Your task to perform on an android device: See recent photos Image 0: 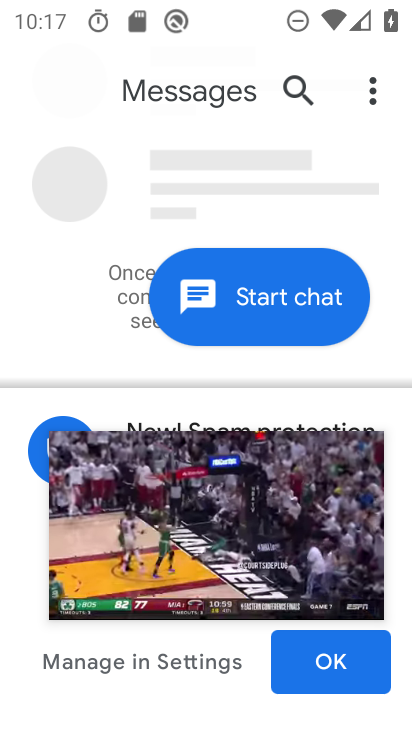
Step 0: click (264, 550)
Your task to perform on an android device: See recent photos Image 1: 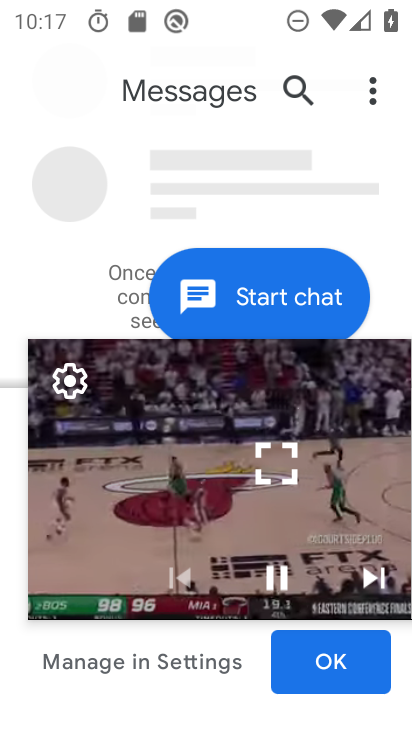
Step 1: press home button
Your task to perform on an android device: See recent photos Image 2: 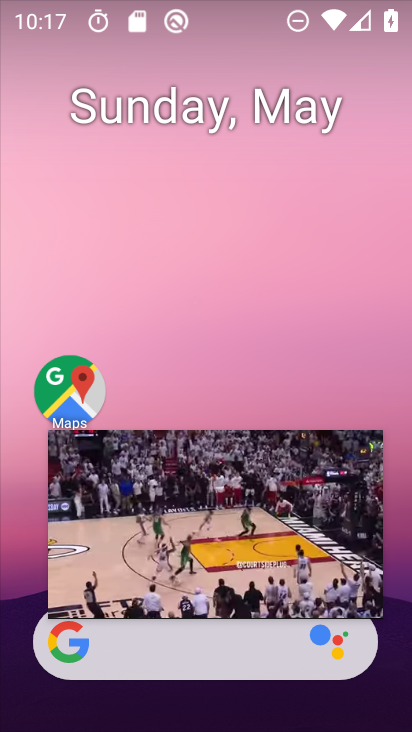
Step 2: click (368, 122)
Your task to perform on an android device: See recent photos Image 3: 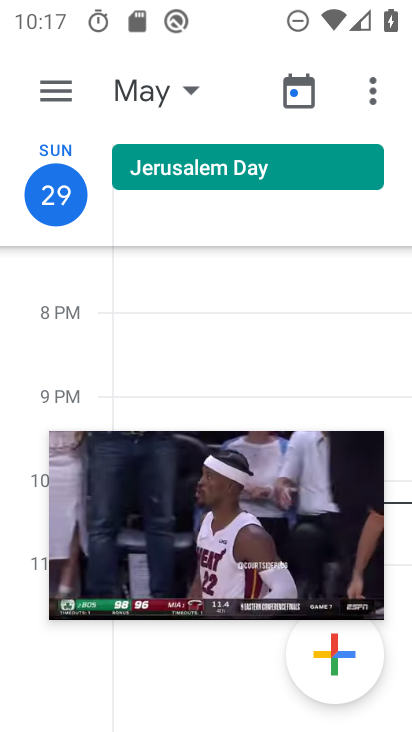
Step 3: click (365, 459)
Your task to perform on an android device: See recent photos Image 4: 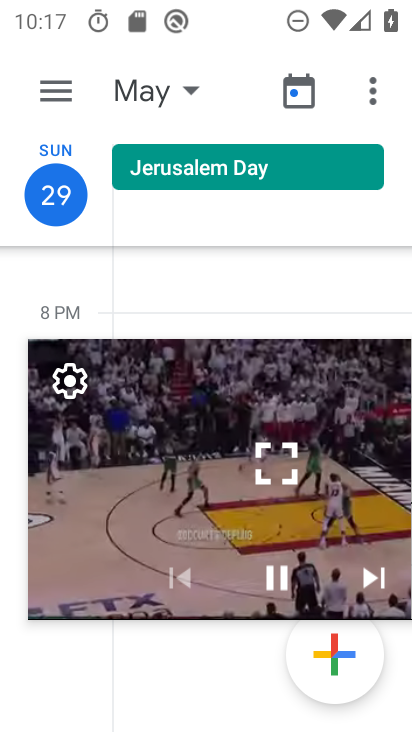
Step 4: press home button
Your task to perform on an android device: See recent photos Image 5: 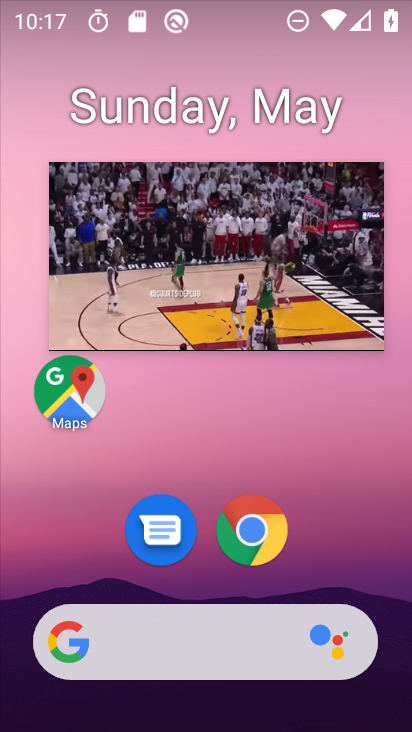
Step 5: click (392, 192)
Your task to perform on an android device: See recent photos Image 6: 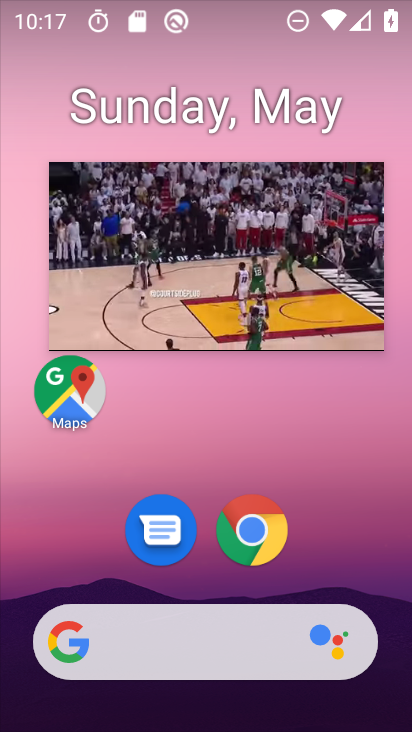
Step 6: click (373, 197)
Your task to perform on an android device: See recent photos Image 7: 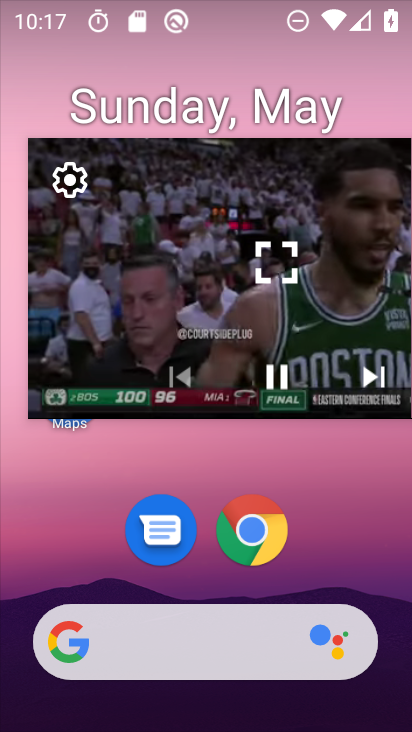
Step 7: drag from (220, 203) to (215, 717)
Your task to perform on an android device: See recent photos Image 8: 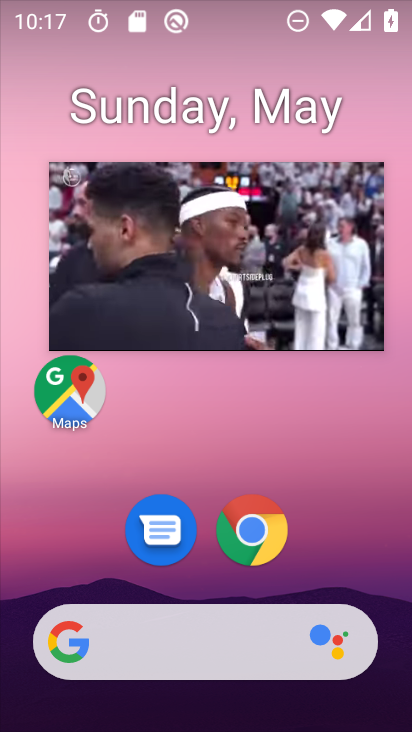
Step 8: drag from (212, 673) to (229, 78)
Your task to perform on an android device: See recent photos Image 9: 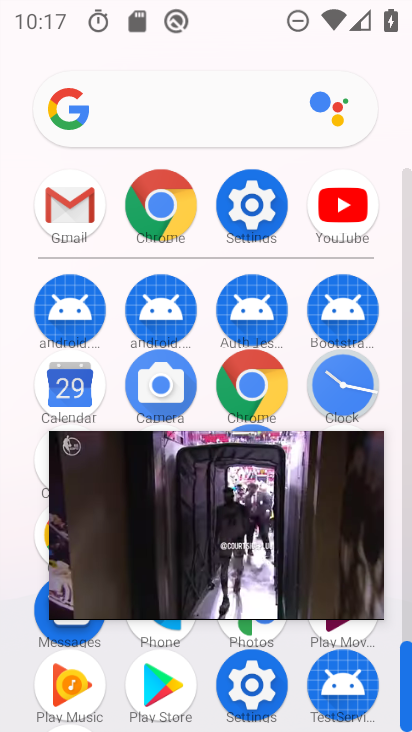
Step 9: click (251, 633)
Your task to perform on an android device: See recent photos Image 10: 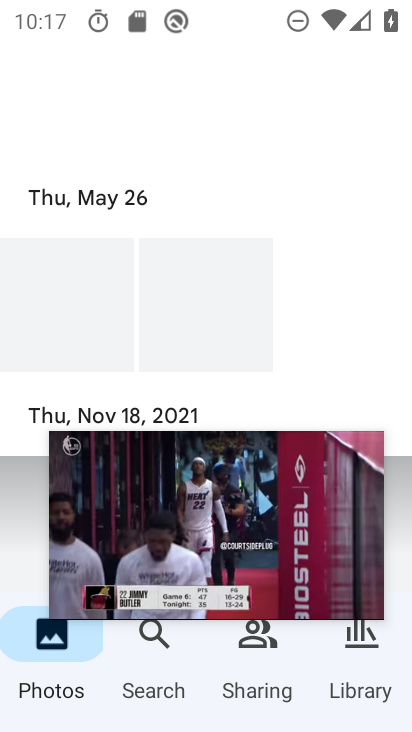
Step 10: click (231, 507)
Your task to perform on an android device: See recent photos Image 11: 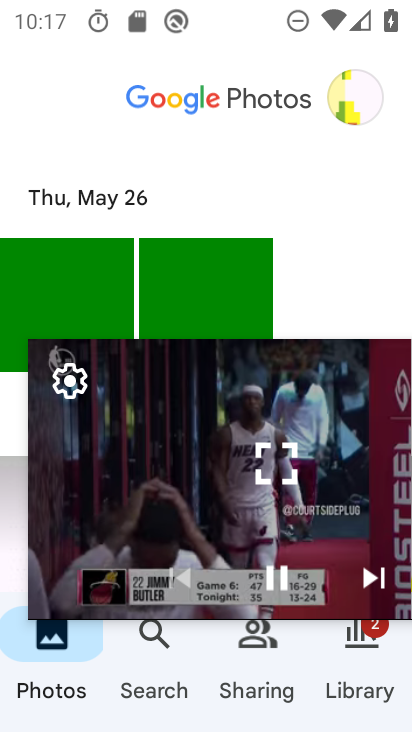
Step 11: click (269, 470)
Your task to perform on an android device: See recent photos Image 12: 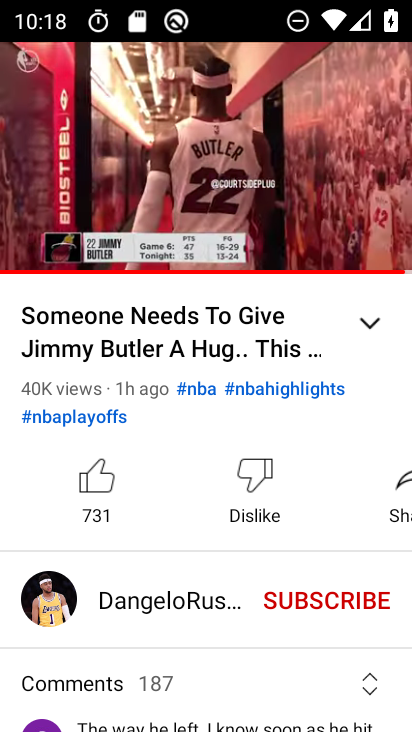
Step 12: click (198, 201)
Your task to perform on an android device: See recent photos Image 13: 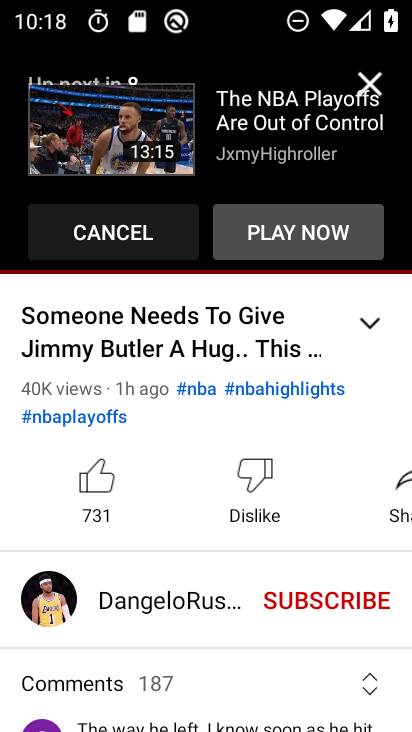
Step 13: click (199, 155)
Your task to perform on an android device: See recent photos Image 14: 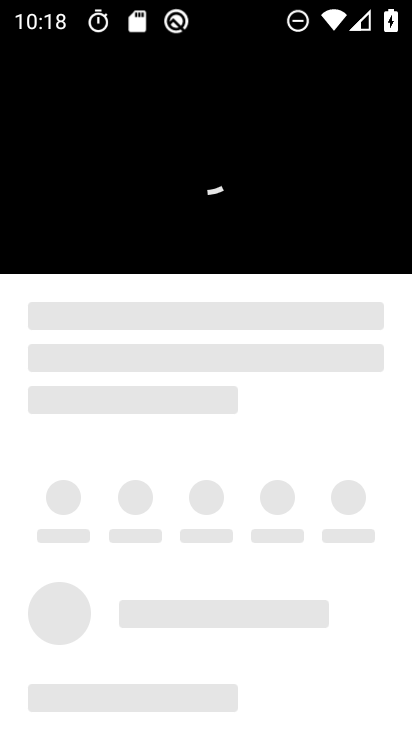
Step 14: click (194, 168)
Your task to perform on an android device: See recent photos Image 15: 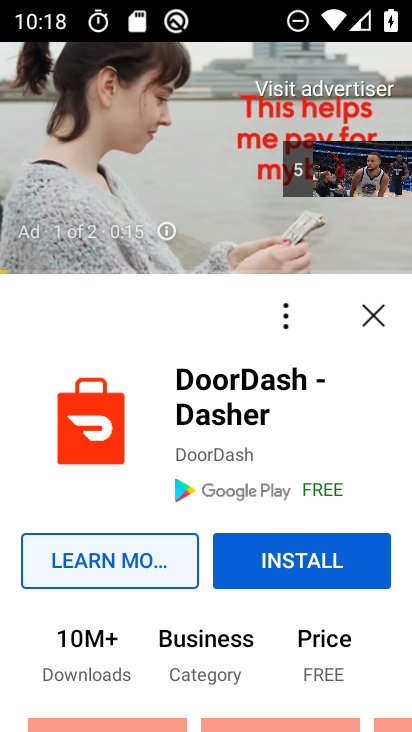
Step 15: click (194, 173)
Your task to perform on an android device: See recent photos Image 16: 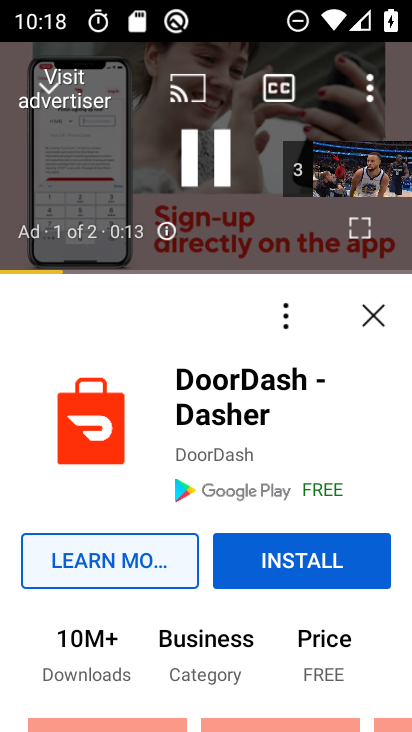
Step 16: click (191, 168)
Your task to perform on an android device: See recent photos Image 17: 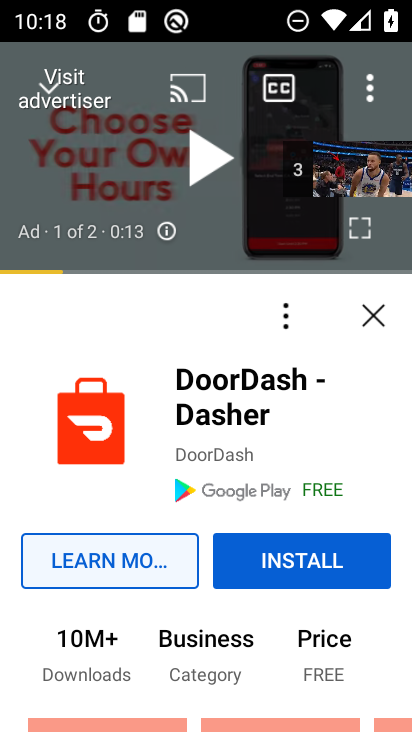
Step 17: click (51, 82)
Your task to perform on an android device: See recent photos Image 18: 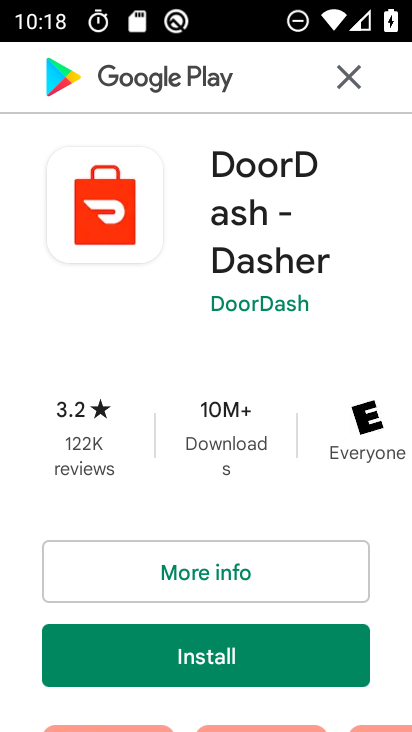
Step 18: press back button
Your task to perform on an android device: See recent photos Image 19: 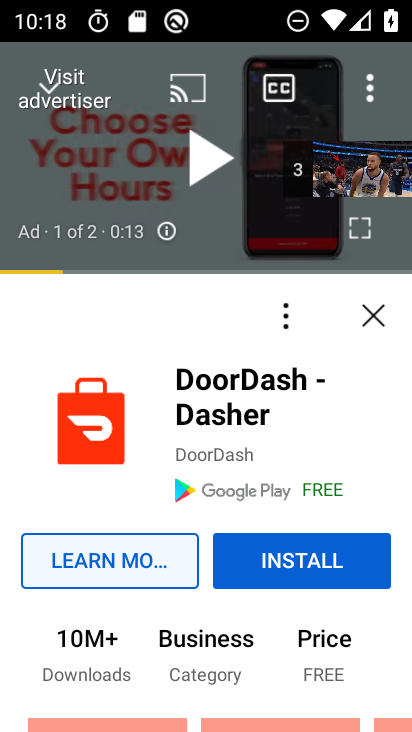
Step 19: press back button
Your task to perform on an android device: See recent photos Image 20: 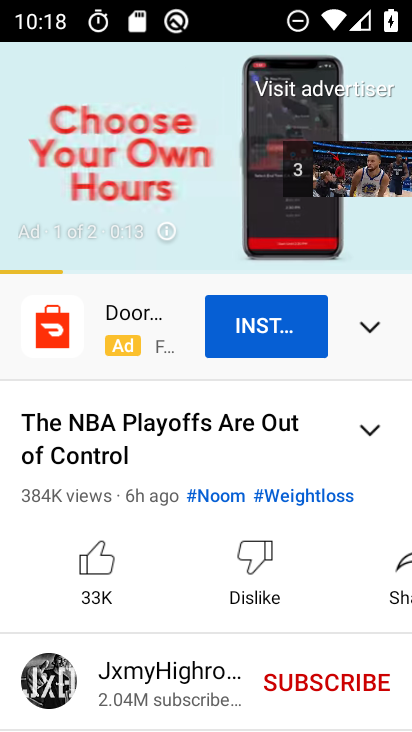
Step 20: press back button
Your task to perform on an android device: See recent photos Image 21: 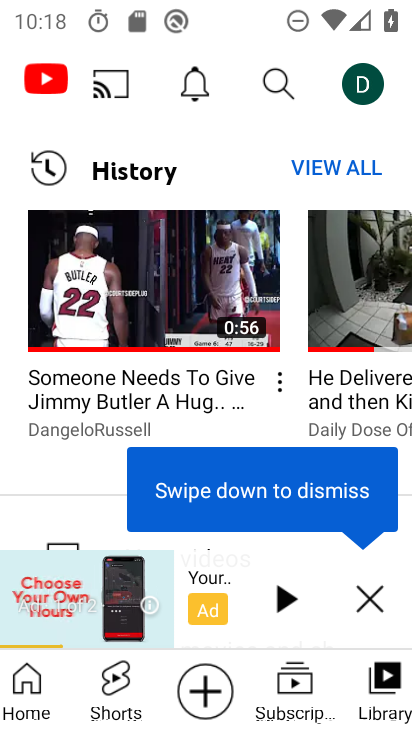
Step 21: press back button
Your task to perform on an android device: See recent photos Image 22: 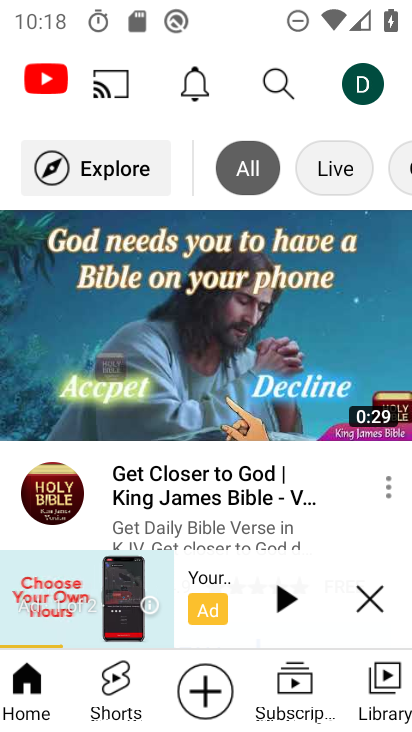
Step 22: press home button
Your task to perform on an android device: See recent photos Image 23: 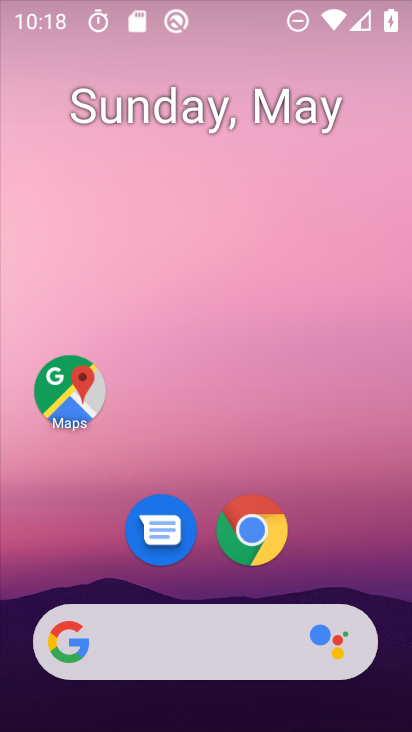
Step 23: drag from (215, 658) to (260, 194)
Your task to perform on an android device: See recent photos Image 24: 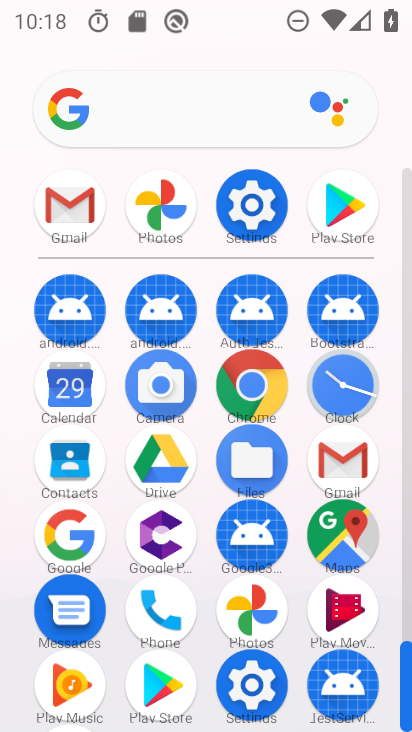
Step 24: click (242, 605)
Your task to perform on an android device: See recent photos Image 25: 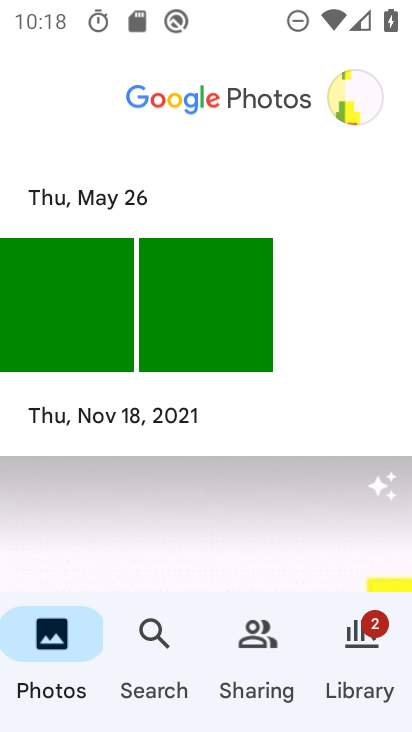
Step 25: task complete